Your task to perform on an android device: turn on translation in the chrome app Image 0: 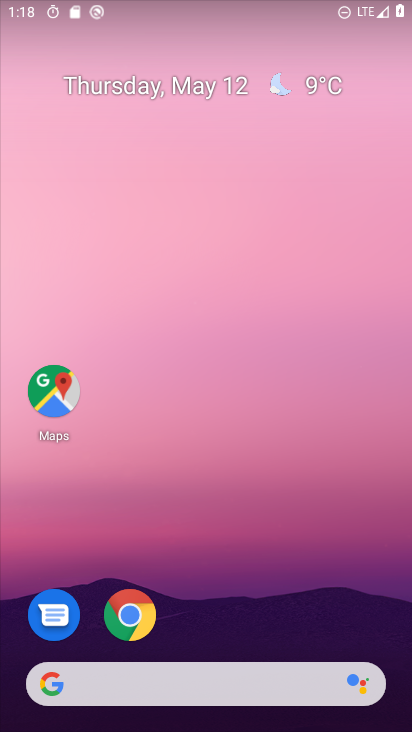
Step 0: drag from (248, 596) to (264, 144)
Your task to perform on an android device: turn on translation in the chrome app Image 1: 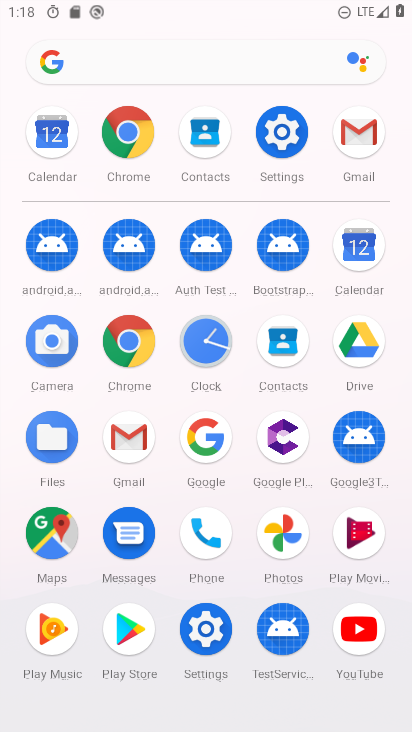
Step 1: click (137, 349)
Your task to perform on an android device: turn on translation in the chrome app Image 2: 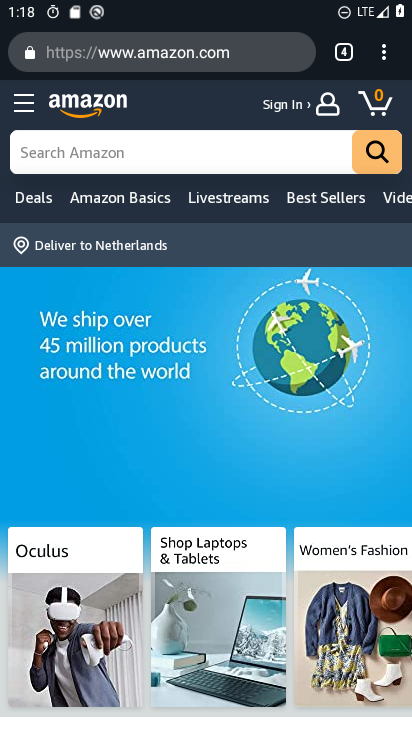
Step 2: drag from (383, 49) to (221, 622)
Your task to perform on an android device: turn on translation in the chrome app Image 3: 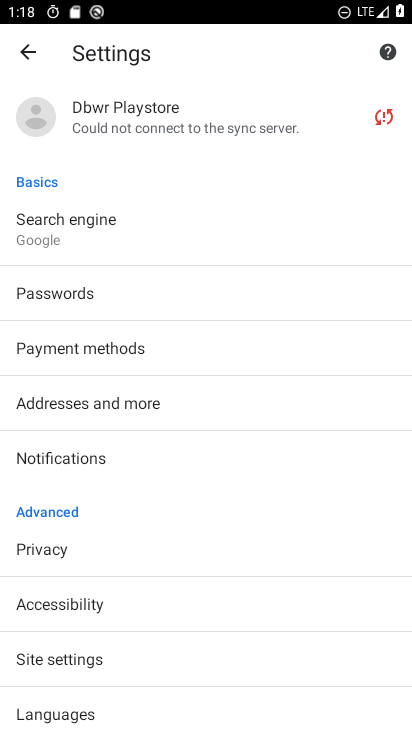
Step 3: drag from (278, 561) to (303, 222)
Your task to perform on an android device: turn on translation in the chrome app Image 4: 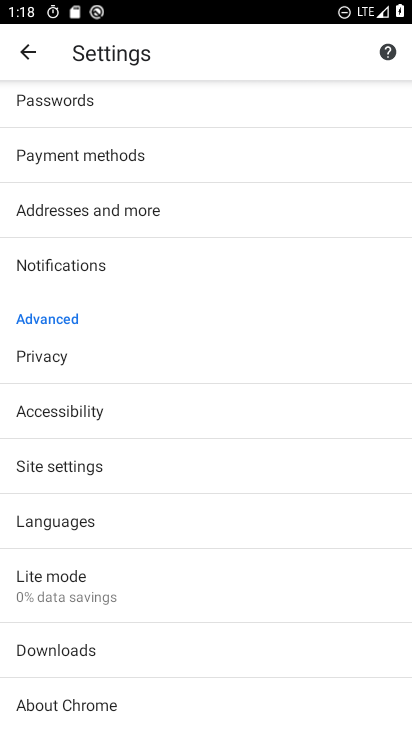
Step 4: click (111, 520)
Your task to perform on an android device: turn on translation in the chrome app Image 5: 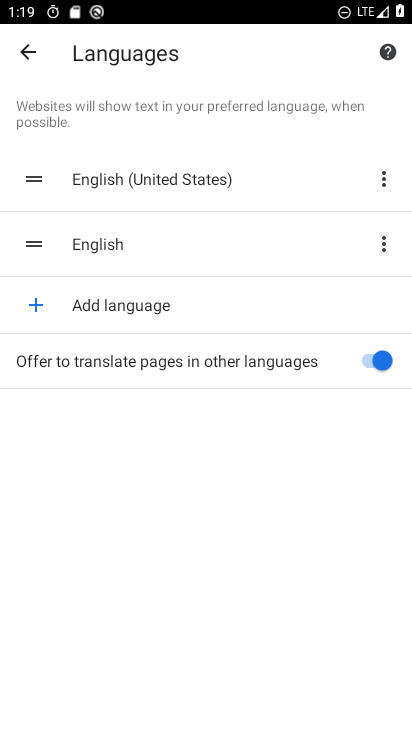
Step 5: task complete